Your task to perform on an android device: View the shopping cart on newegg. Search for duracell triple a on newegg, select the first entry, add it to the cart, then select checkout. Image 0: 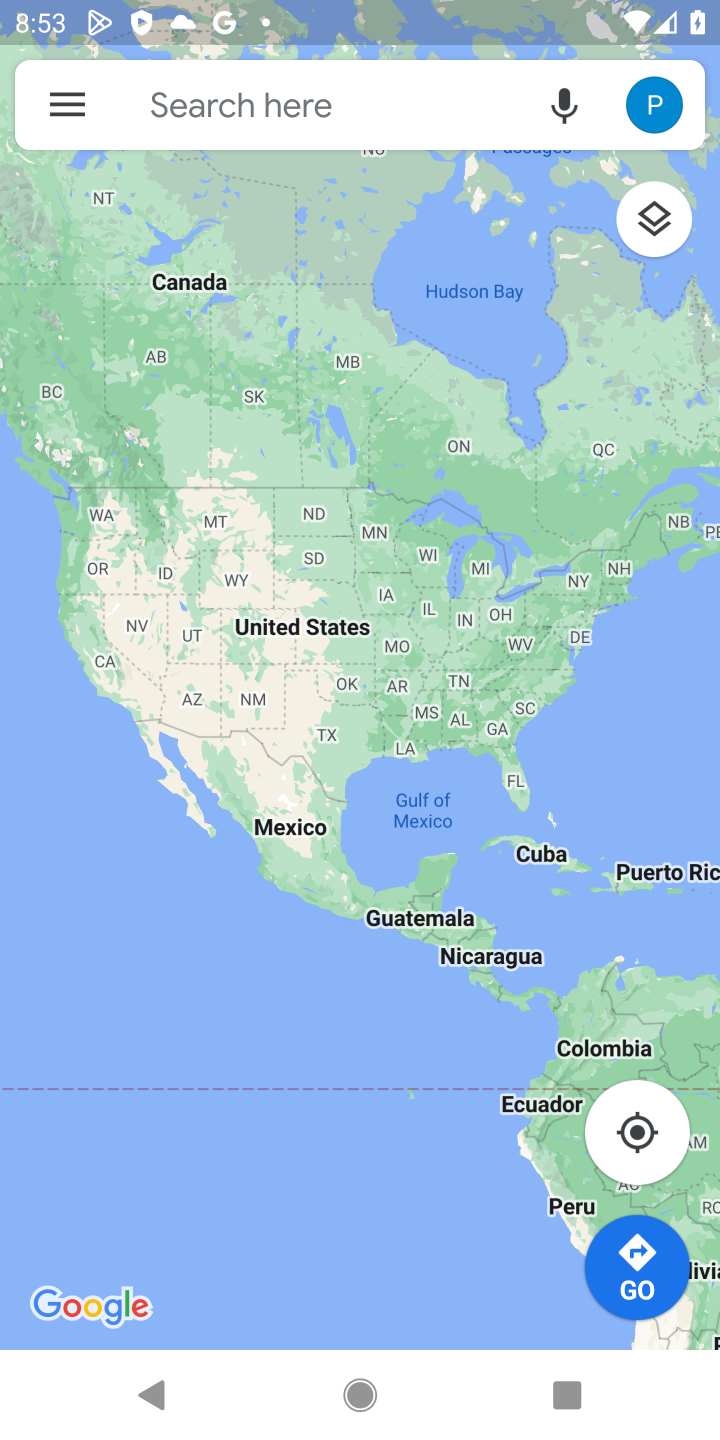
Step 0: press home button
Your task to perform on an android device: View the shopping cart on newegg. Search for duracell triple a on newegg, select the first entry, add it to the cart, then select checkout. Image 1: 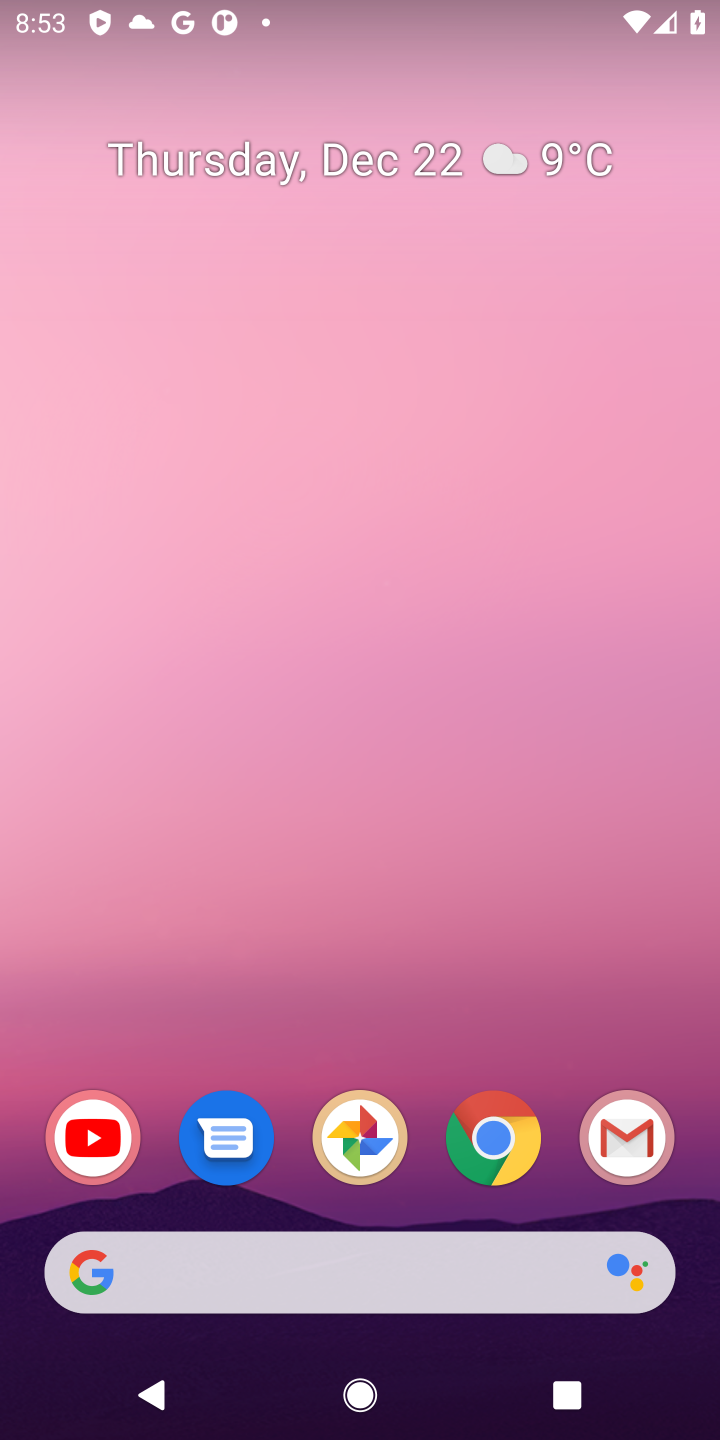
Step 1: click (494, 1144)
Your task to perform on an android device: View the shopping cart on newegg. Search for duracell triple a on newegg, select the first entry, add it to the cart, then select checkout. Image 2: 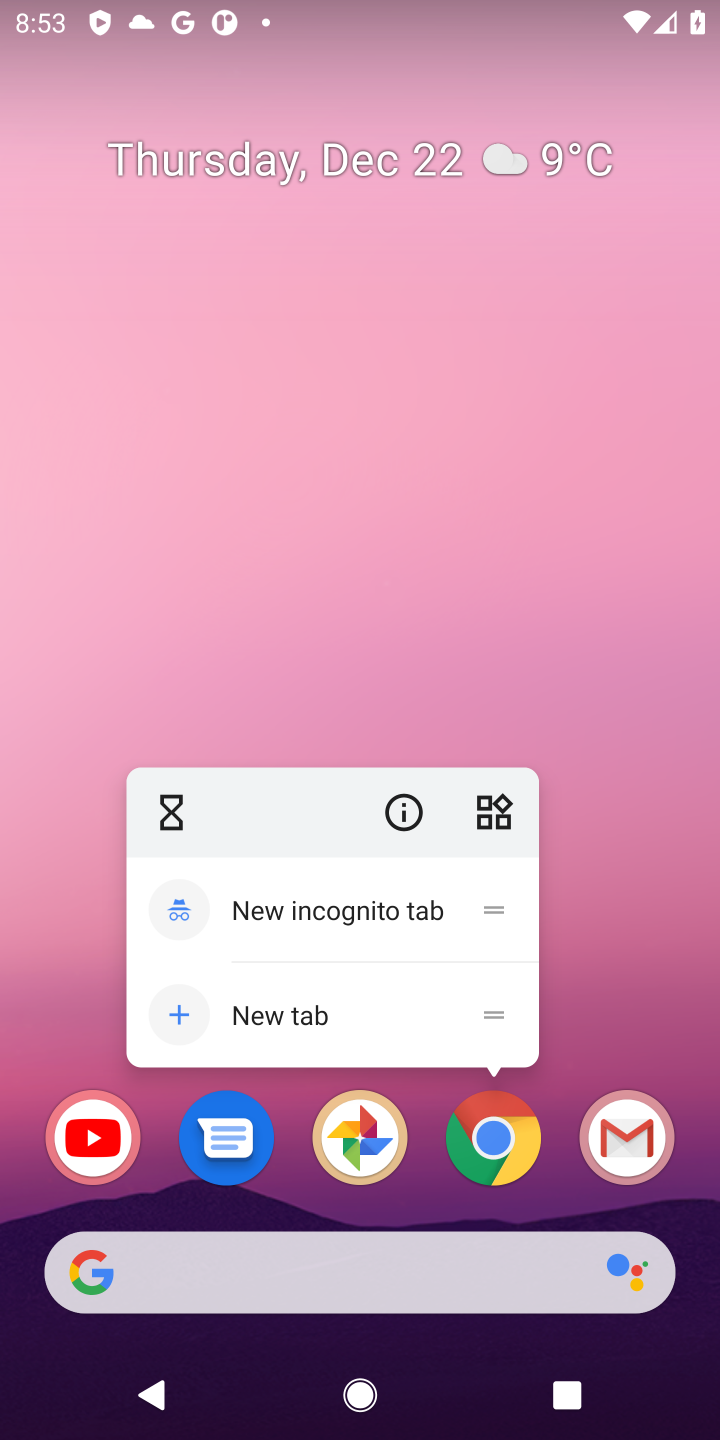
Step 2: click (505, 1158)
Your task to perform on an android device: View the shopping cart on newegg. Search for duracell triple a on newegg, select the first entry, add it to the cart, then select checkout. Image 3: 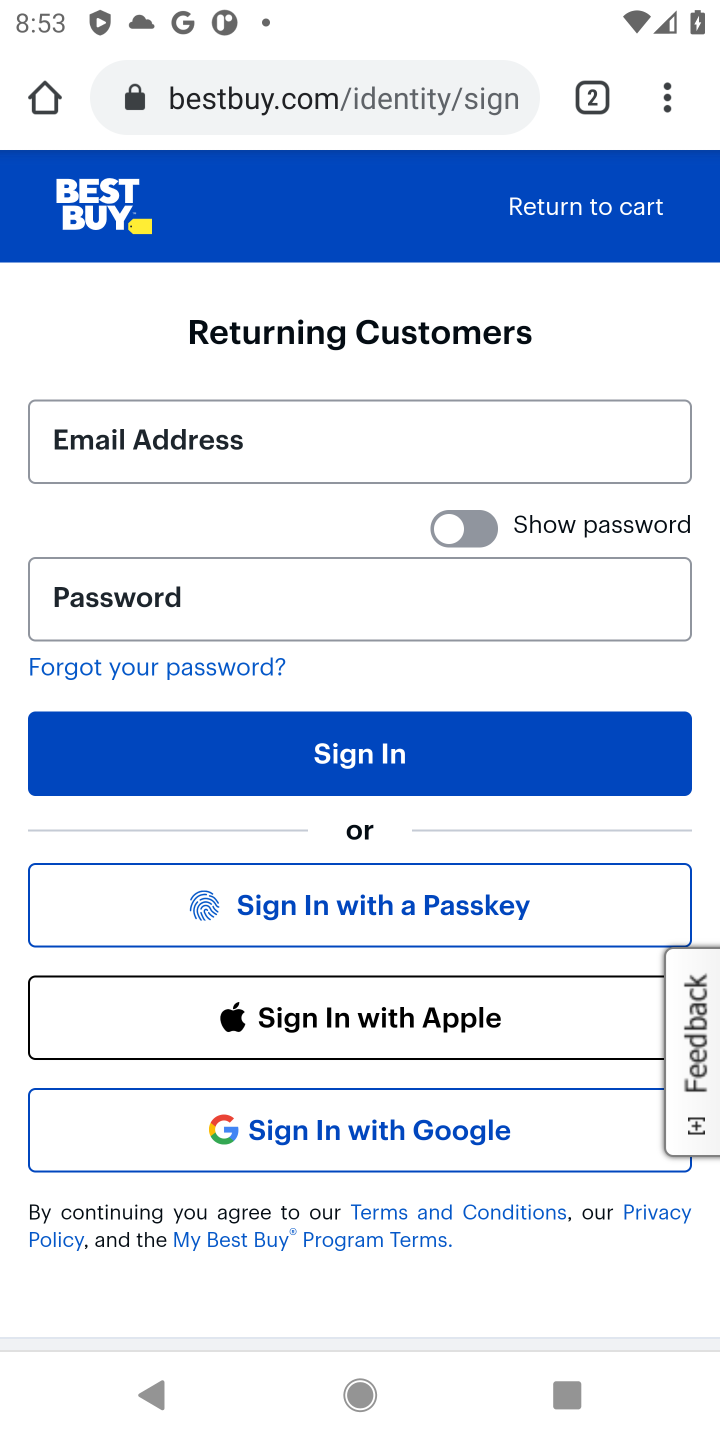
Step 3: click (241, 93)
Your task to perform on an android device: View the shopping cart on newegg. Search for duracell triple a on newegg, select the first entry, add it to the cart, then select checkout. Image 4: 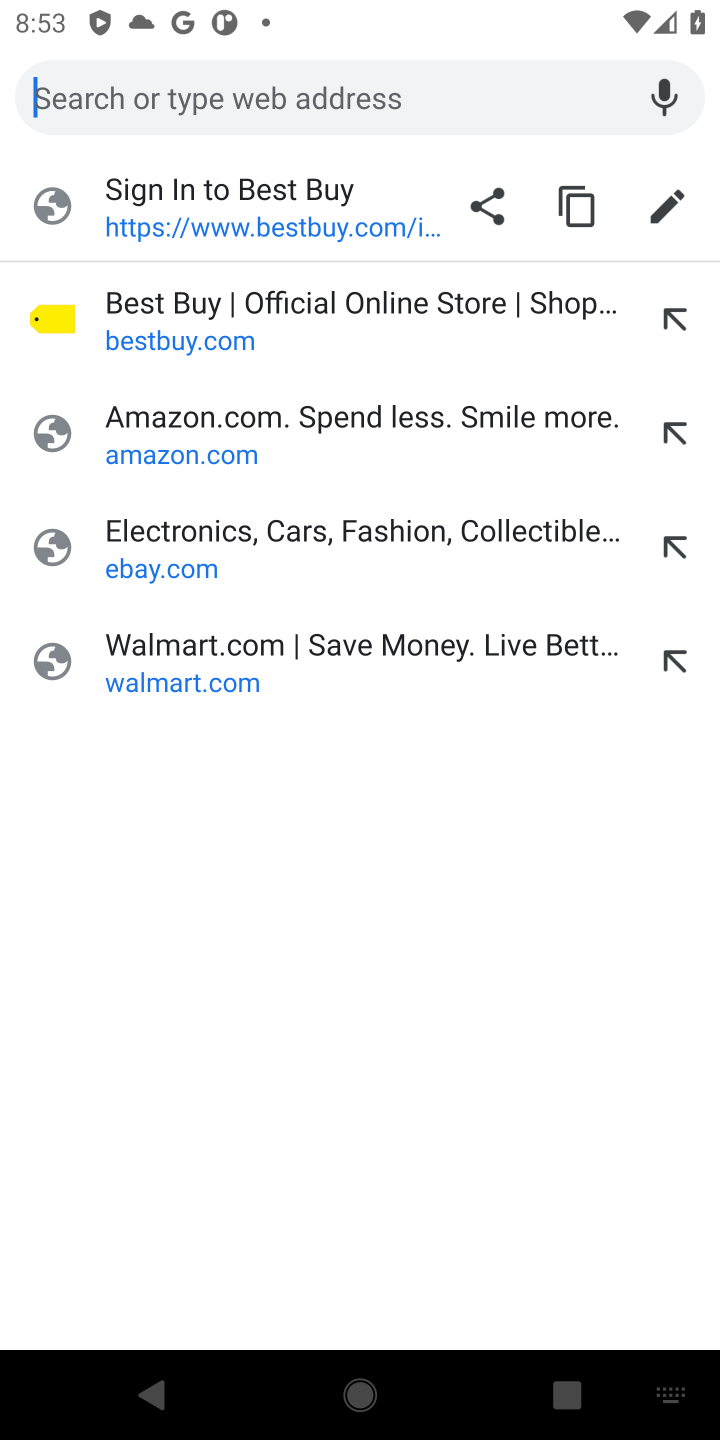
Step 4: type "newegg"
Your task to perform on an android device: View the shopping cart on newegg. Search for duracell triple a on newegg, select the first entry, add it to the cart, then select checkout. Image 5: 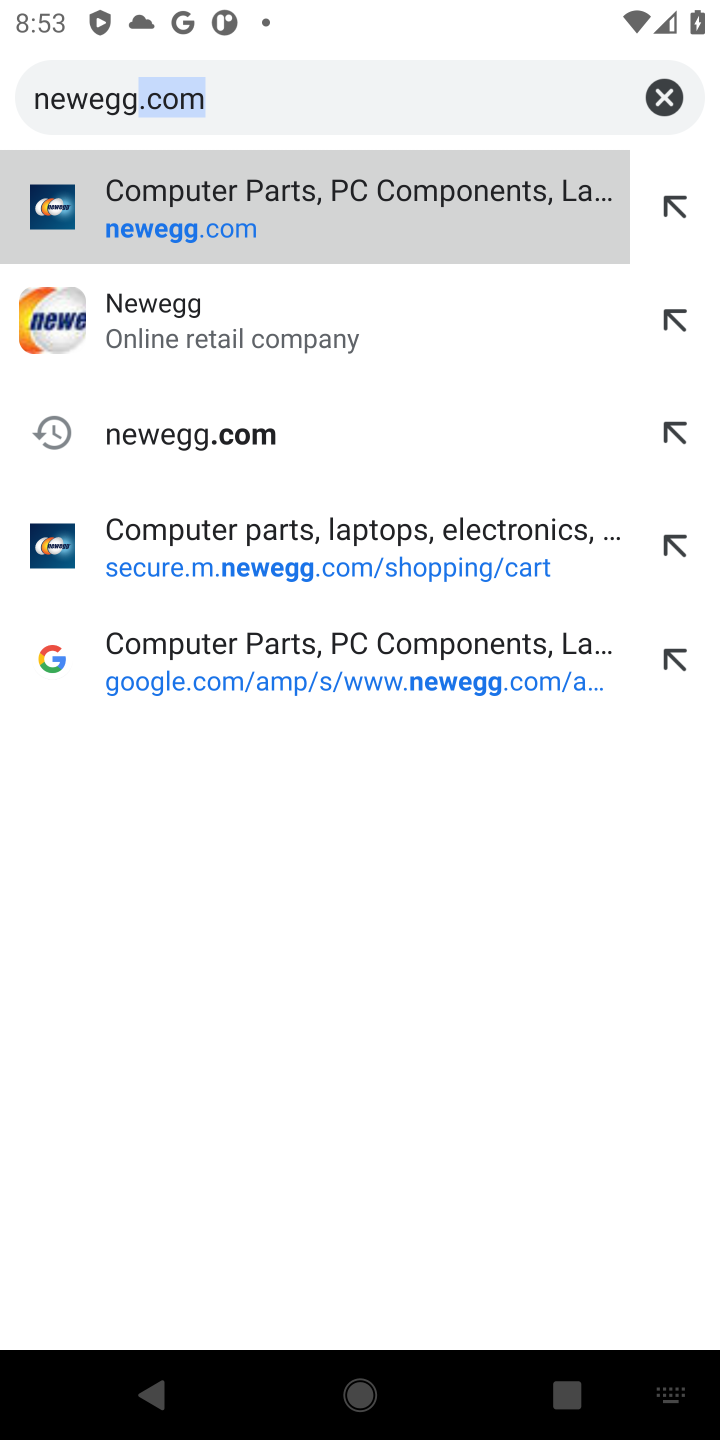
Step 5: click (267, 248)
Your task to perform on an android device: View the shopping cart on newegg. Search for duracell triple a on newegg, select the first entry, add it to the cart, then select checkout. Image 6: 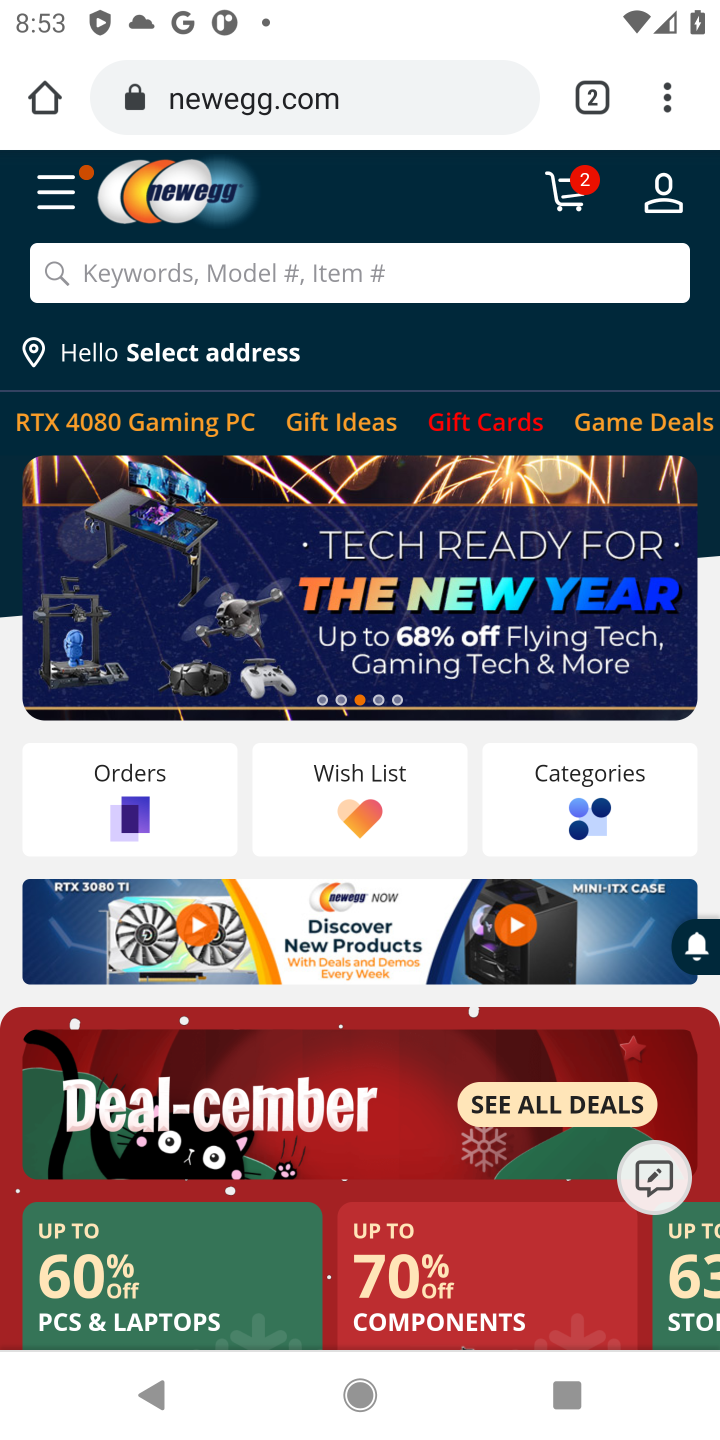
Step 6: click (557, 194)
Your task to perform on an android device: View the shopping cart on newegg. Search for duracell triple a on newegg, select the first entry, add it to the cart, then select checkout. Image 7: 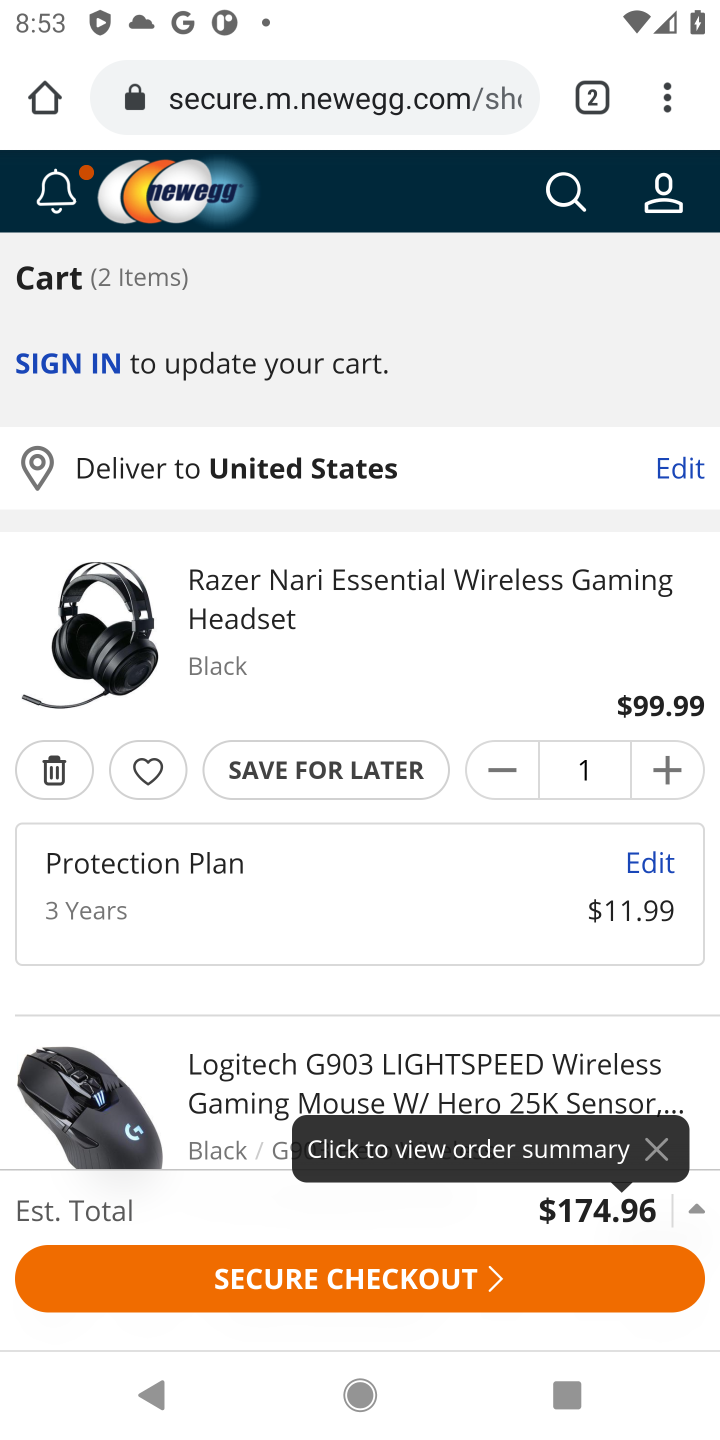
Step 7: click (562, 203)
Your task to perform on an android device: View the shopping cart on newegg. Search for duracell triple a on newegg, select the first entry, add it to the cart, then select checkout. Image 8: 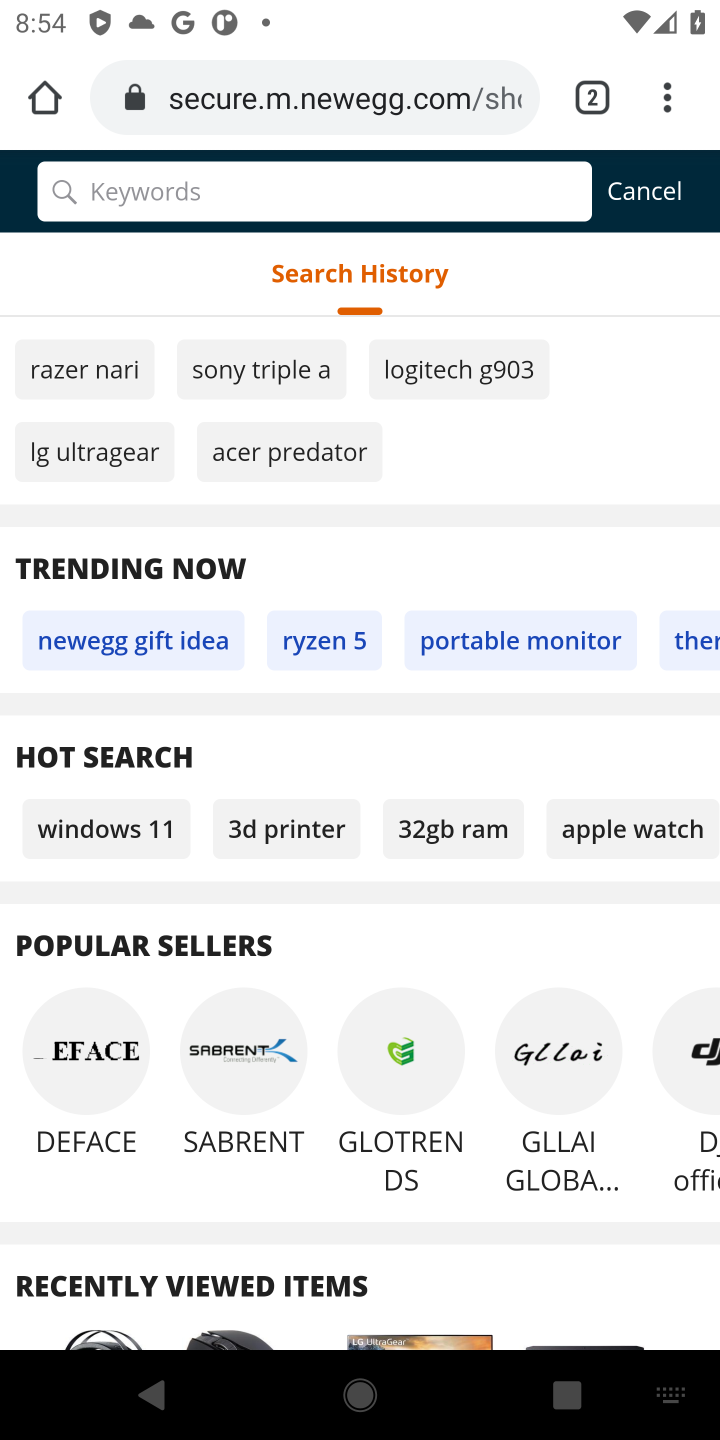
Step 8: type "duracell triple a"
Your task to perform on an android device: View the shopping cart on newegg. Search for duracell triple a on newegg, select the first entry, add it to the cart, then select checkout. Image 9: 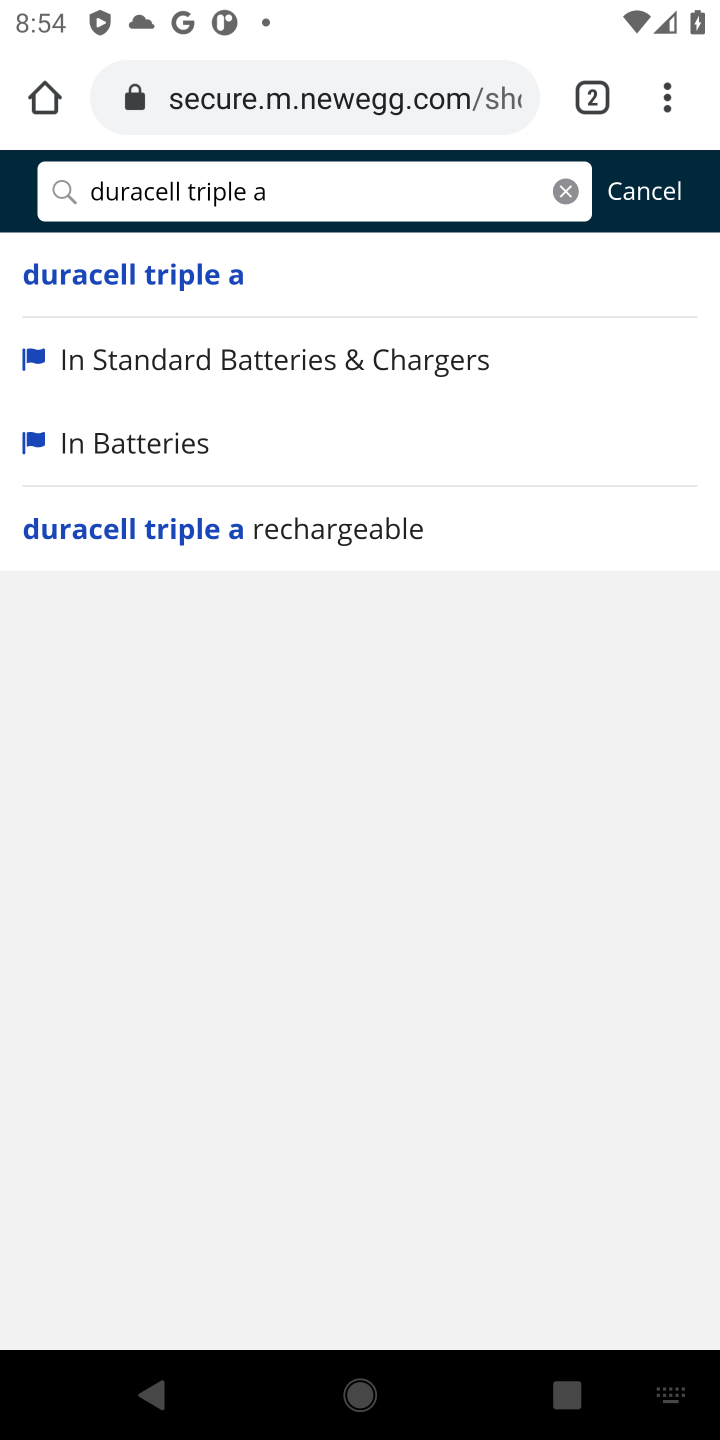
Step 9: press enter
Your task to perform on an android device: View the shopping cart on newegg. Search for duracell triple a on newegg, select the first entry, add it to the cart, then select checkout. Image 10: 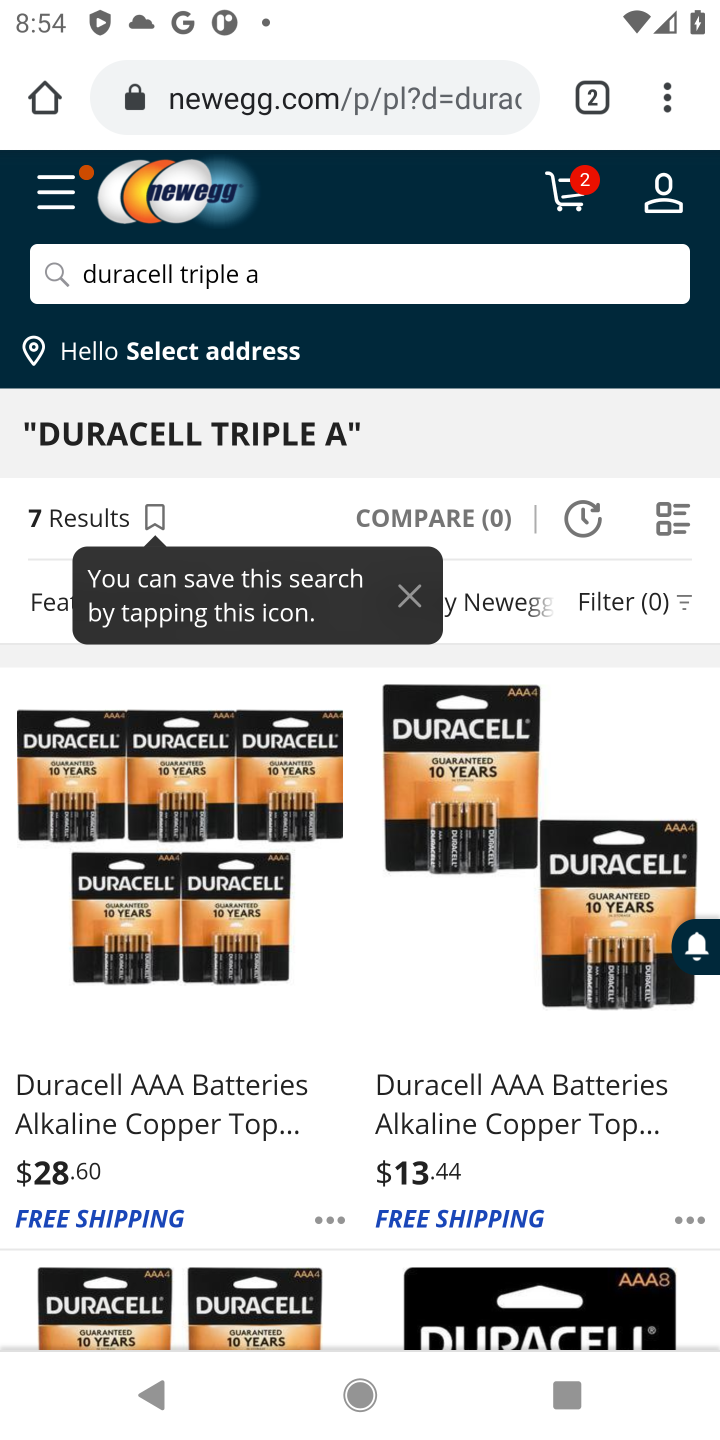
Step 10: click (371, 1193)
Your task to perform on an android device: View the shopping cart on newegg. Search for duracell triple a on newegg, select the first entry, add it to the cart, then select checkout. Image 11: 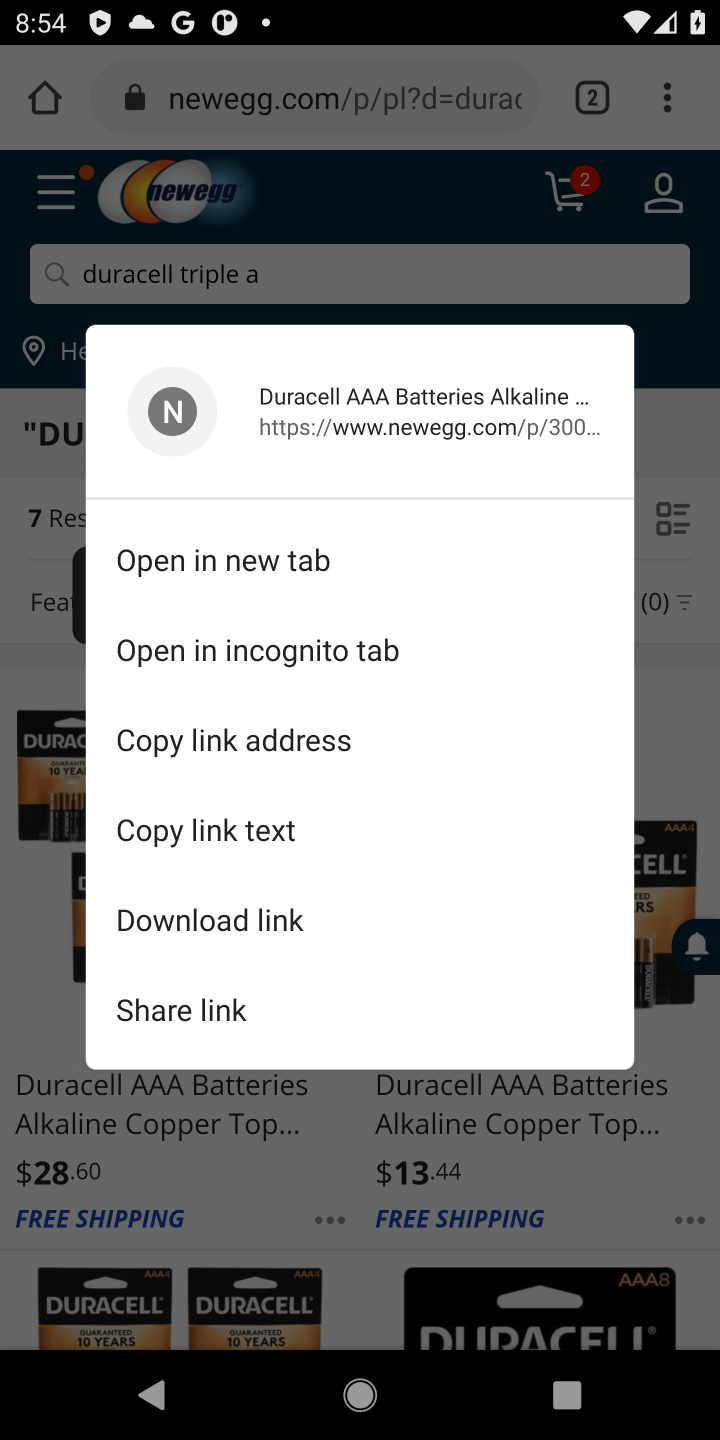
Step 11: click (339, 1173)
Your task to perform on an android device: View the shopping cart on newegg. Search for duracell triple a on newegg, select the first entry, add it to the cart, then select checkout. Image 12: 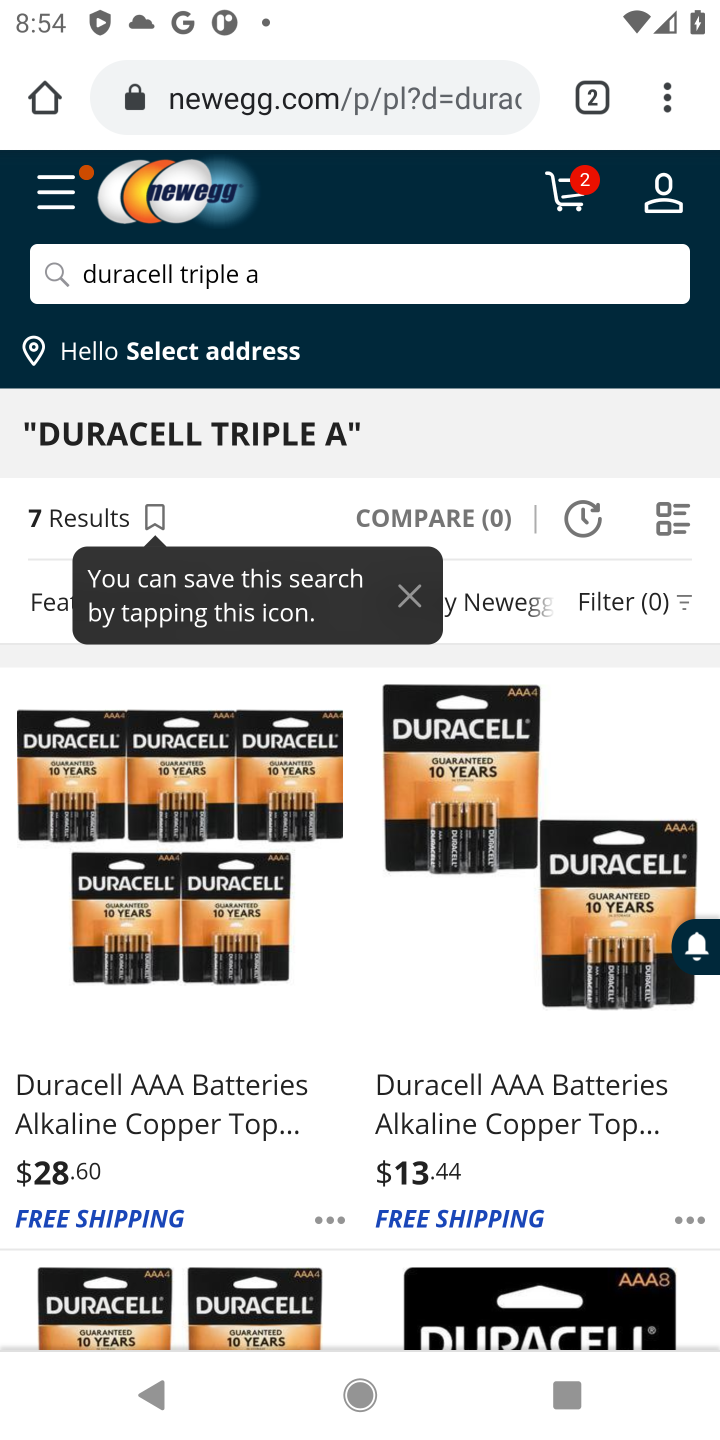
Step 12: click (132, 1035)
Your task to perform on an android device: View the shopping cart on newegg. Search for duracell triple a on newegg, select the first entry, add it to the cart, then select checkout. Image 13: 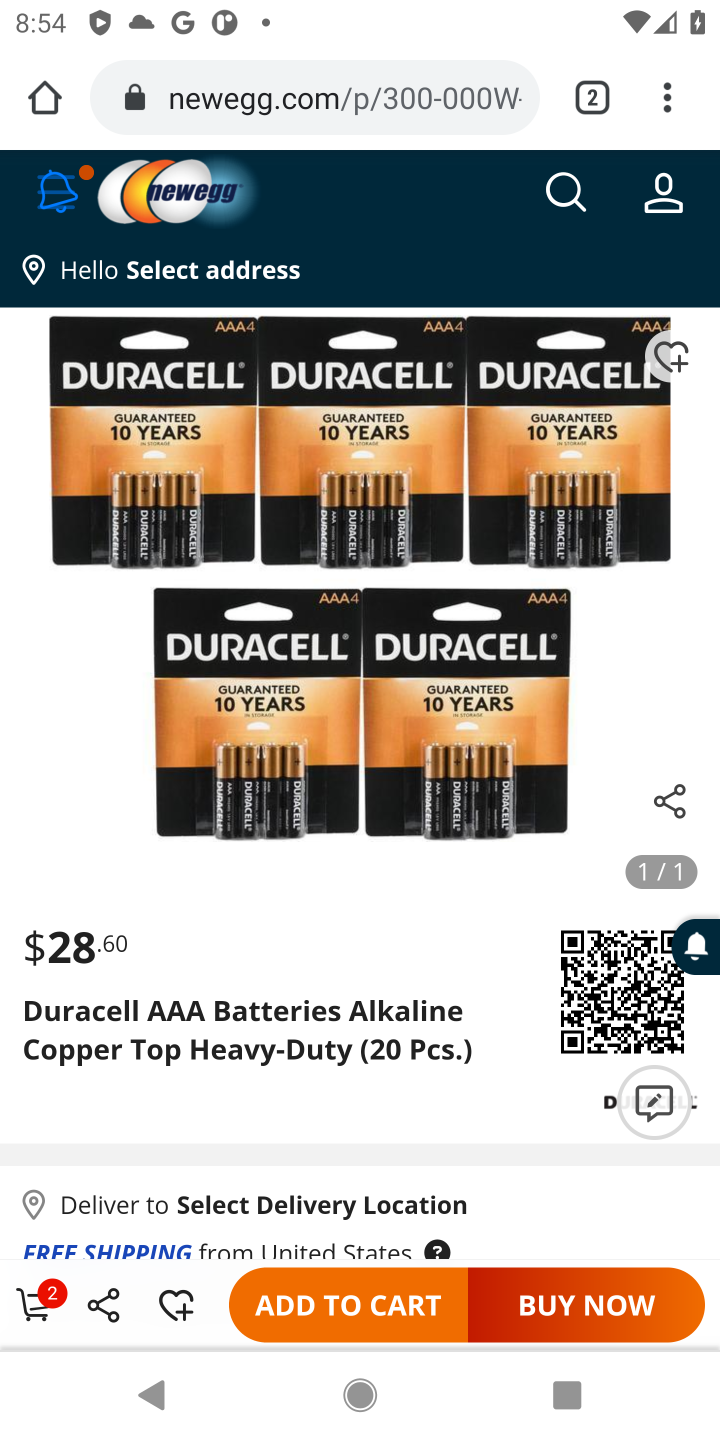
Step 13: click (357, 1293)
Your task to perform on an android device: View the shopping cart on newegg. Search for duracell triple a on newegg, select the first entry, add it to the cart, then select checkout. Image 14: 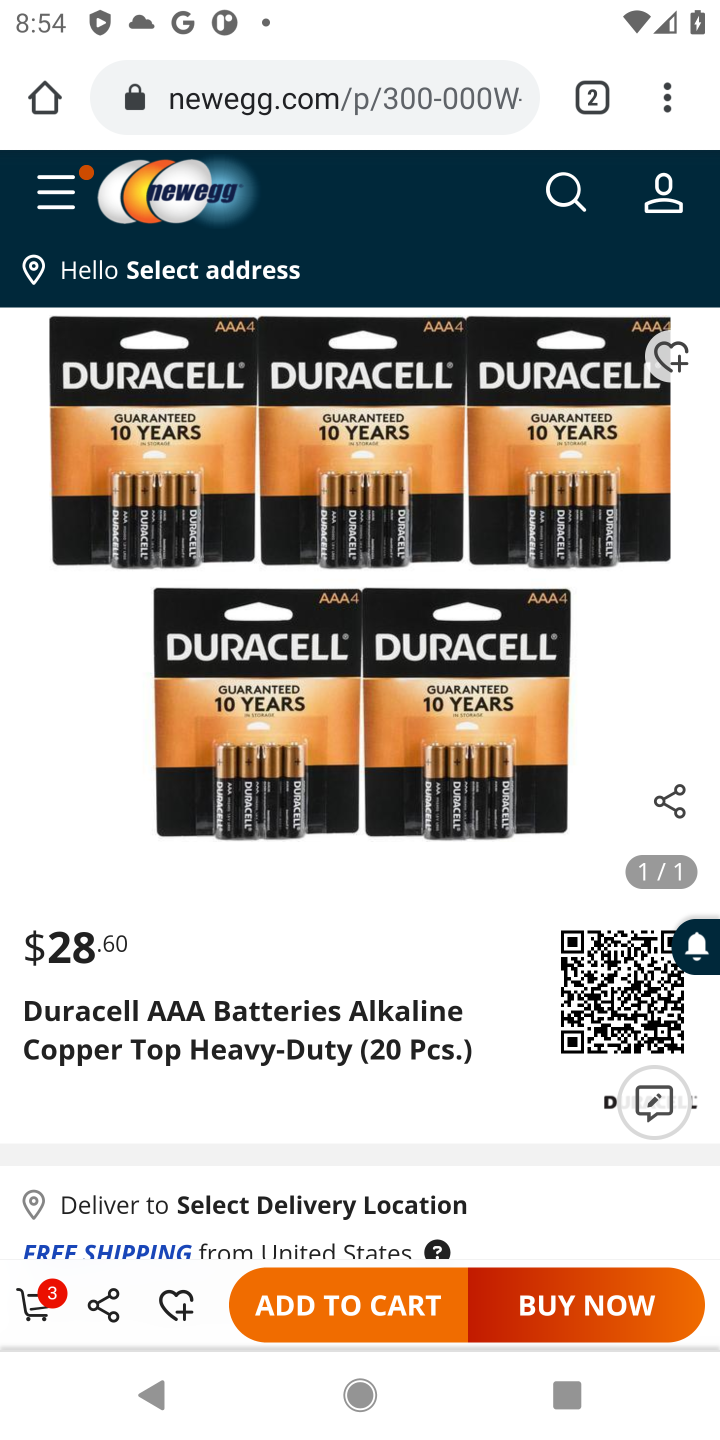
Step 14: click (58, 1317)
Your task to perform on an android device: View the shopping cart on newegg. Search for duracell triple a on newegg, select the first entry, add it to the cart, then select checkout. Image 15: 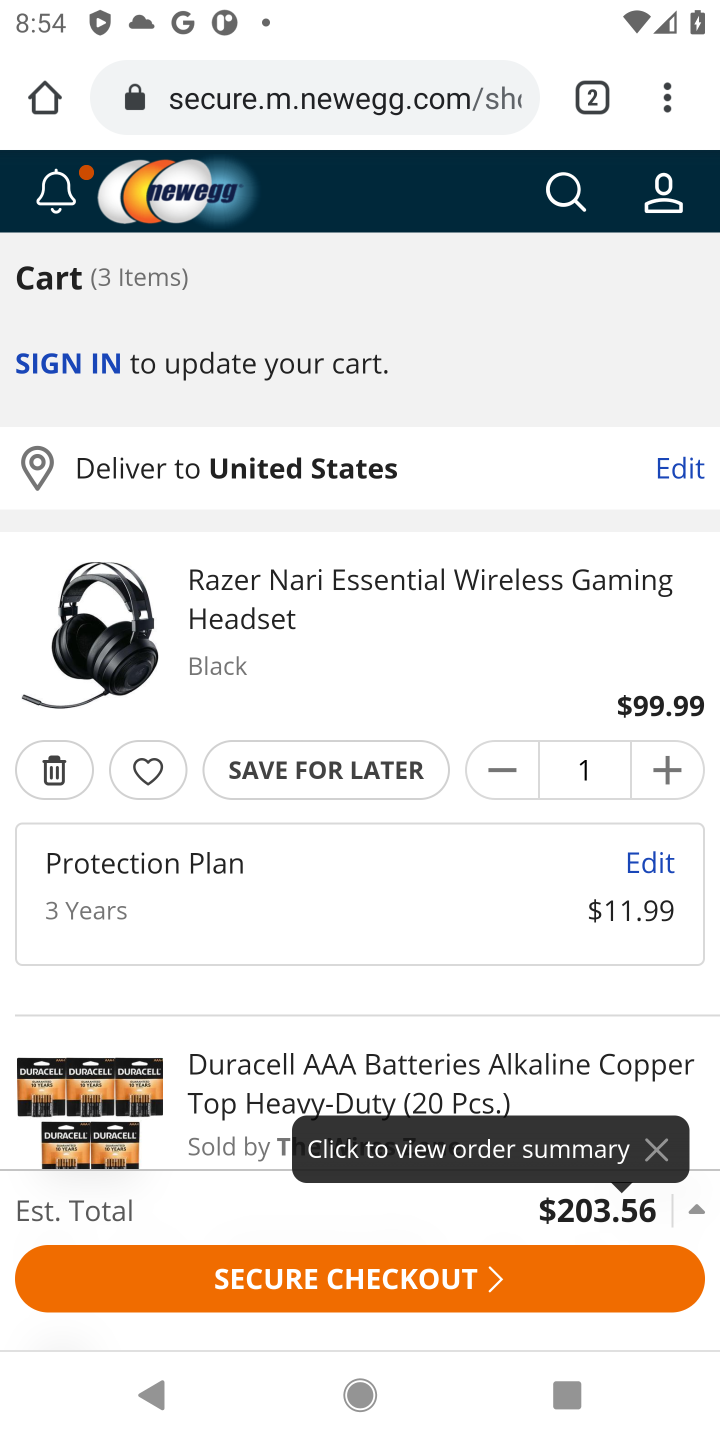
Step 15: click (310, 1288)
Your task to perform on an android device: View the shopping cart on newegg. Search for duracell triple a on newegg, select the first entry, add it to the cart, then select checkout. Image 16: 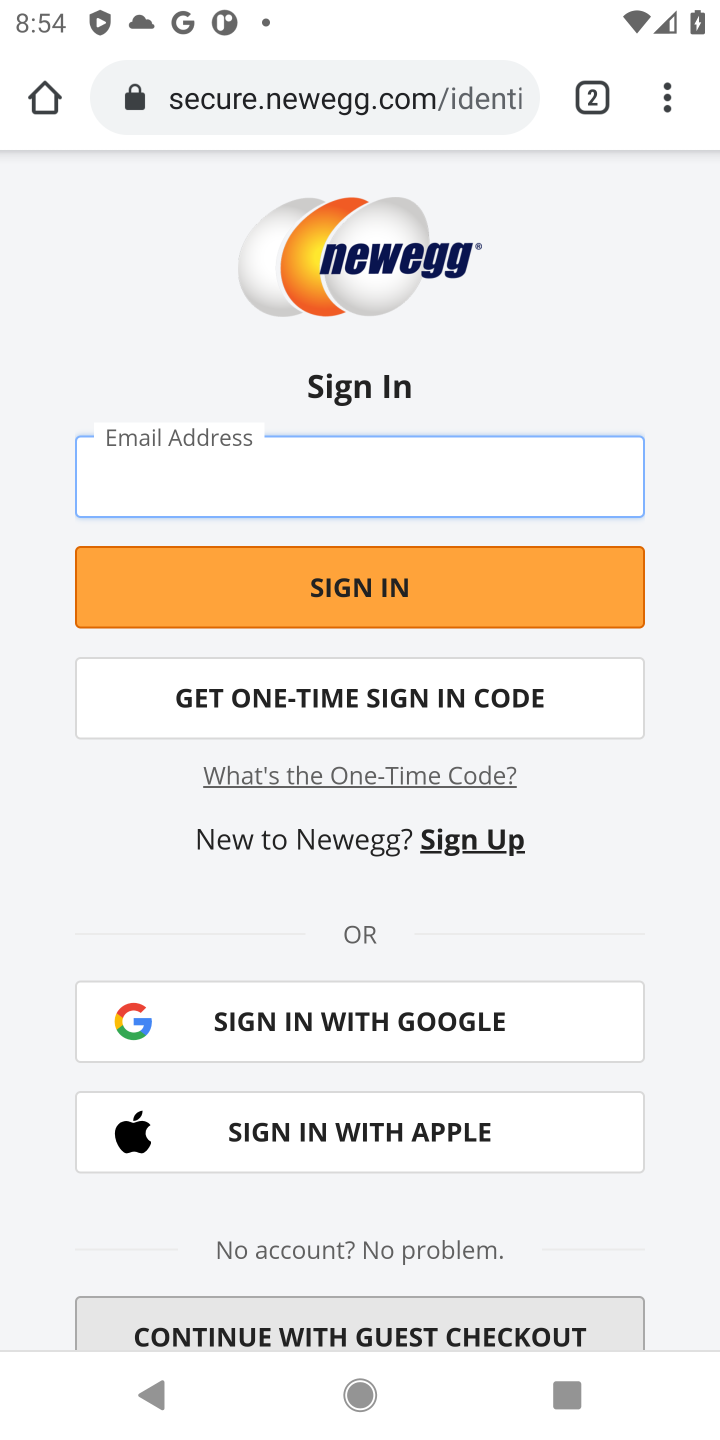
Step 16: task complete